Your task to perform on an android device: add a label to a message in the gmail app Image 0: 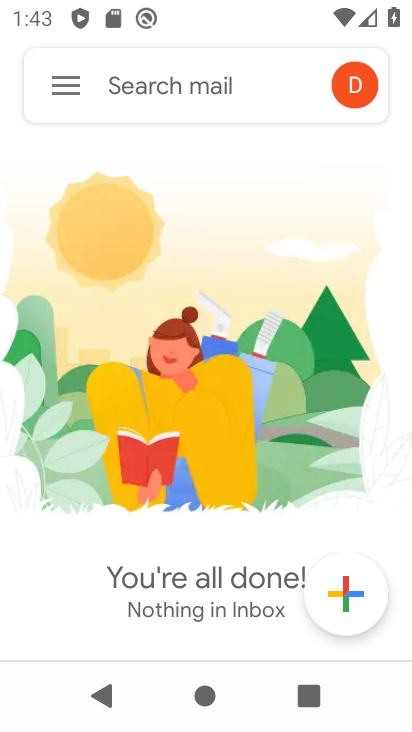
Step 0: task impossible